Your task to perform on an android device: toggle notification dots Image 0: 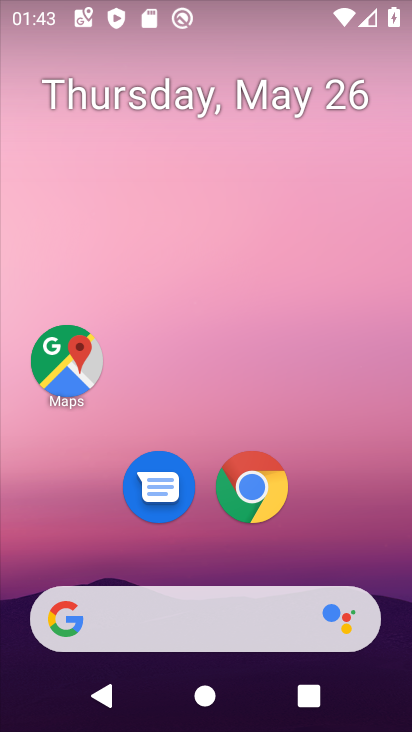
Step 0: press home button
Your task to perform on an android device: toggle notification dots Image 1: 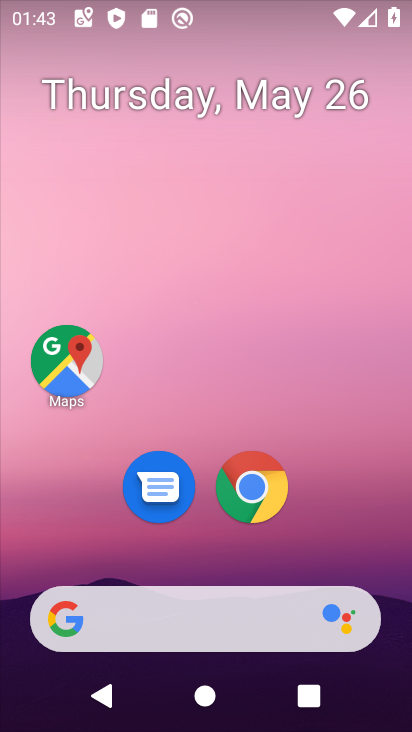
Step 1: drag from (176, 642) to (230, 121)
Your task to perform on an android device: toggle notification dots Image 2: 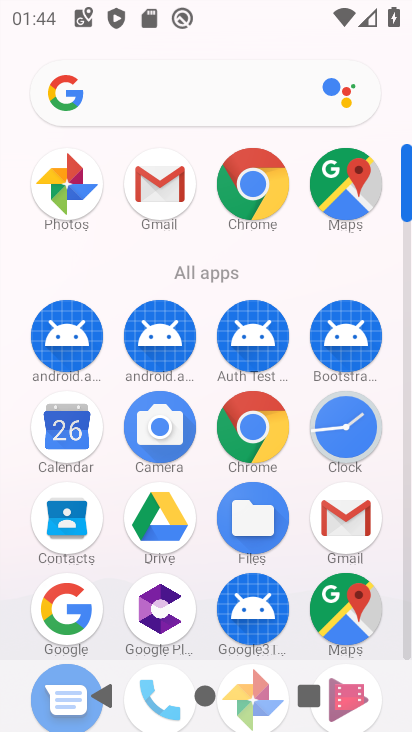
Step 2: drag from (182, 557) to (199, 156)
Your task to perform on an android device: toggle notification dots Image 3: 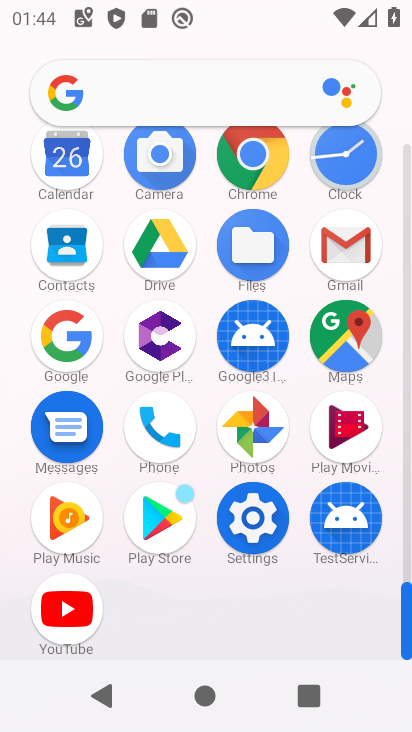
Step 3: click (248, 497)
Your task to perform on an android device: toggle notification dots Image 4: 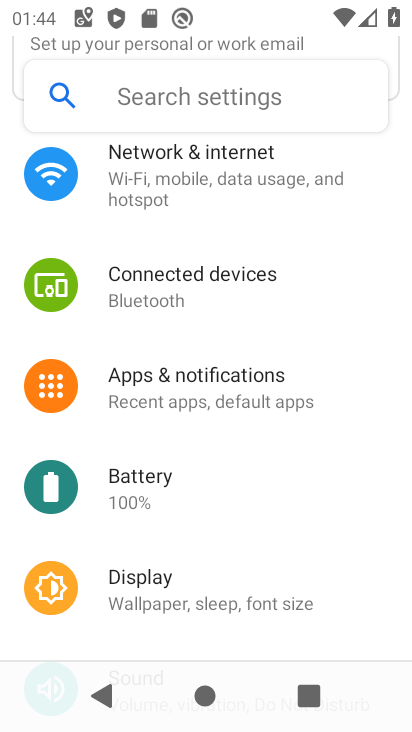
Step 4: click (196, 385)
Your task to perform on an android device: toggle notification dots Image 5: 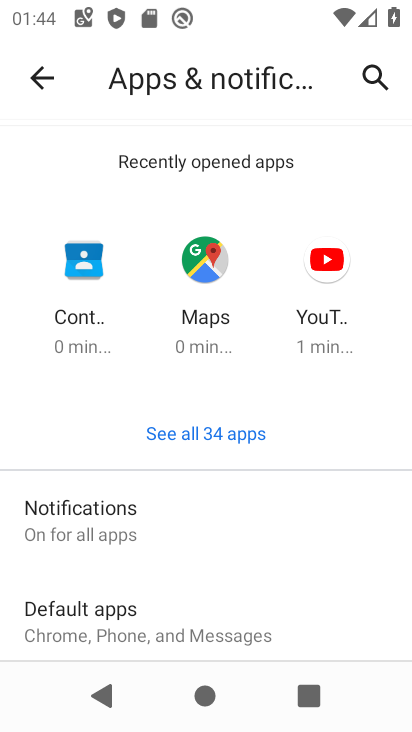
Step 5: click (171, 507)
Your task to perform on an android device: toggle notification dots Image 6: 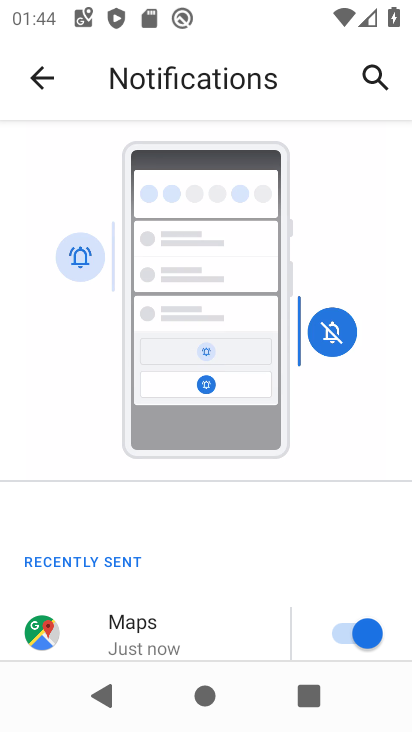
Step 6: drag from (144, 603) to (139, 124)
Your task to perform on an android device: toggle notification dots Image 7: 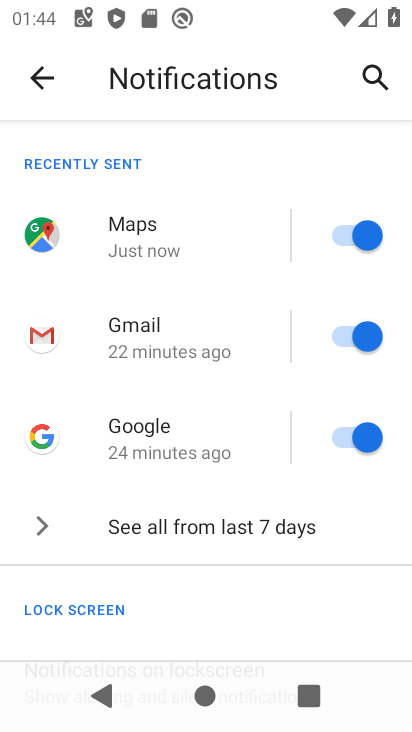
Step 7: drag from (148, 612) to (159, 108)
Your task to perform on an android device: toggle notification dots Image 8: 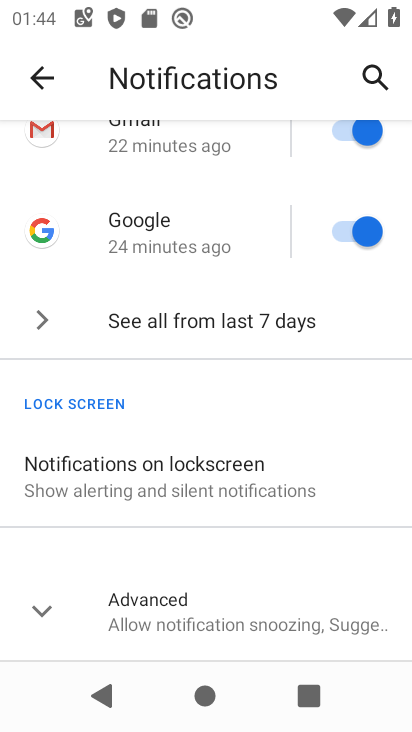
Step 8: click (225, 586)
Your task to perform on an android device: toggle notification dots Image 9: 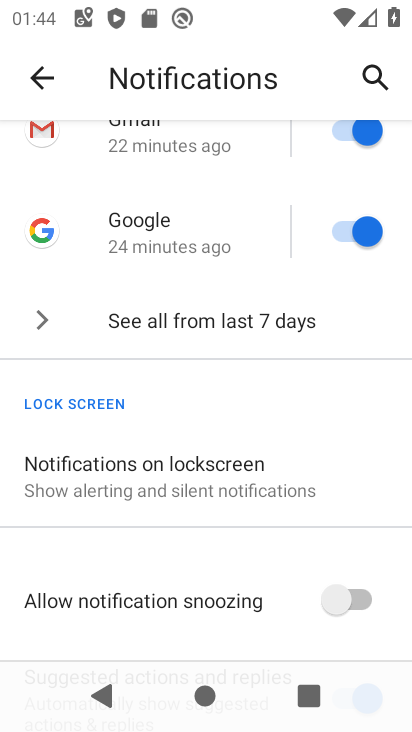
Step 9: drag from (228, 595) to (248, 126)
Your task to perform on an android device: toggle notification dots Image 10: 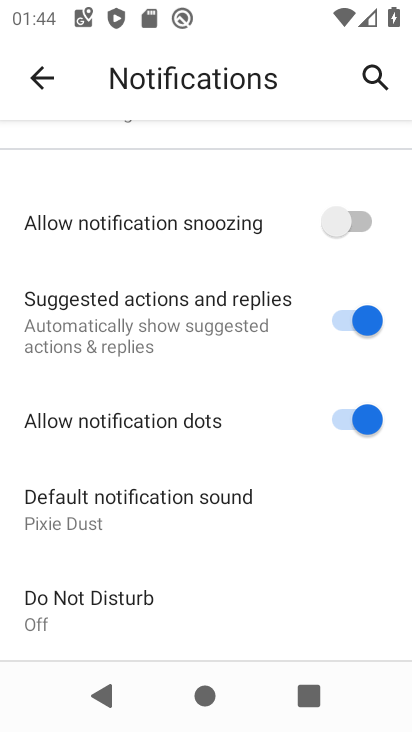
Step 10: click (354, 425)
Your task to perform on an android device: toggle notification dots Image 11: 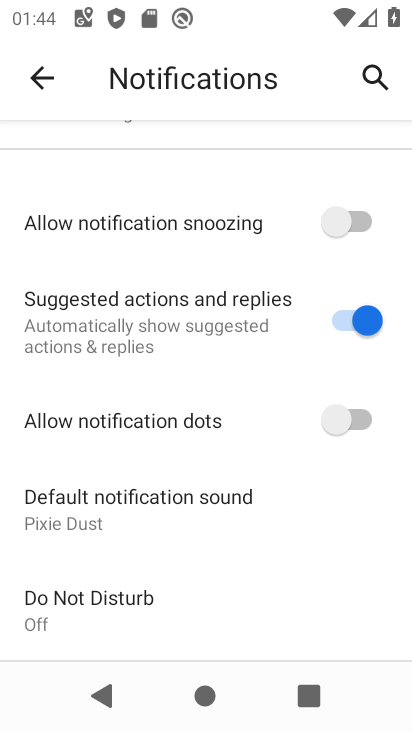
Step 11: task complete